Your task to perform on an android device: Search for Italian restaurants on Maps Image 0: 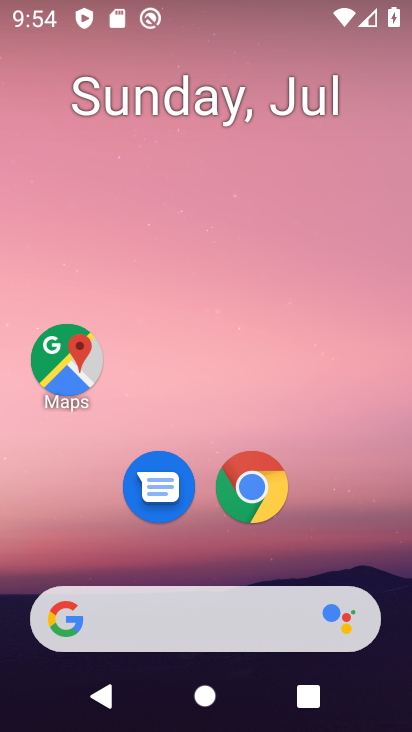
Step 0: click (56, 352)
Your task to perform on an android device: Search for Italian restaurants on Maps Image 1: 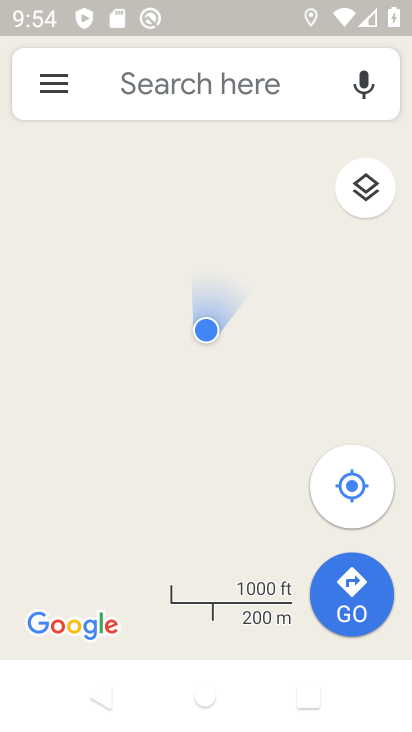
Step 1: click (168, 83)
Your task to perform on an android device: Search for Italian restaurants on Maps Image 2: 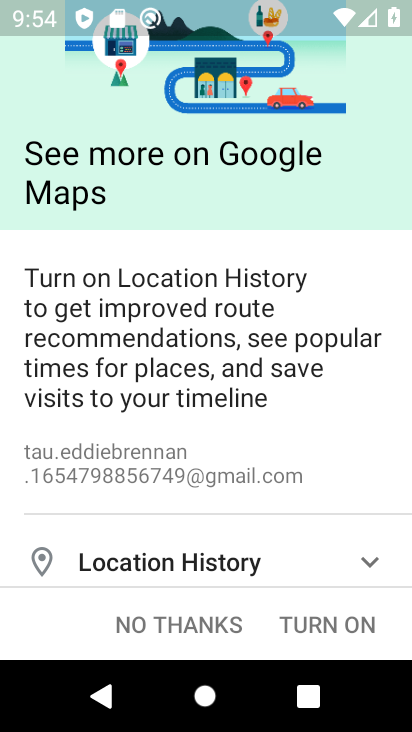
Step 2: click (162, 627)
Your task to perform on an android device: Search for Italian restaurants on Maps Image 3: 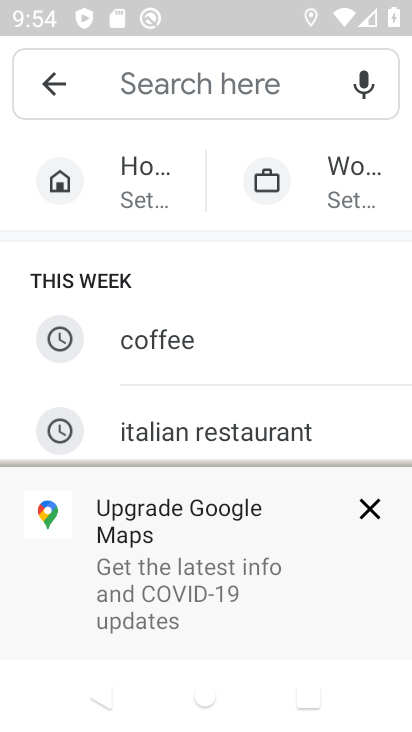
Step 3: click (213, 427)
Your task to perform on an android device: Search for Italian restaurants on Maps Image 4: 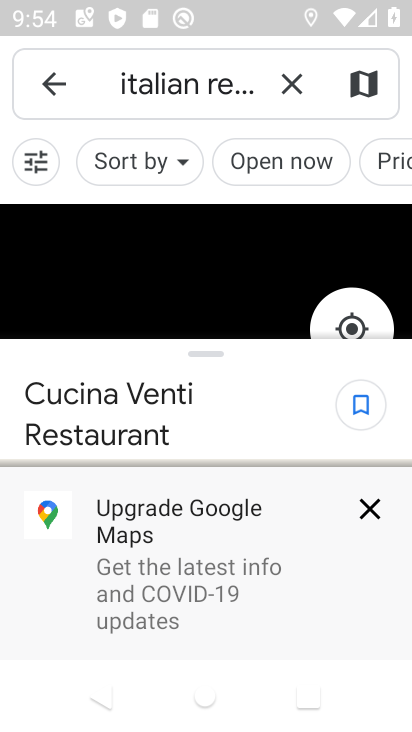
Step 4: task complete